Your task to perform on an android device: Open internet settings Image 0: 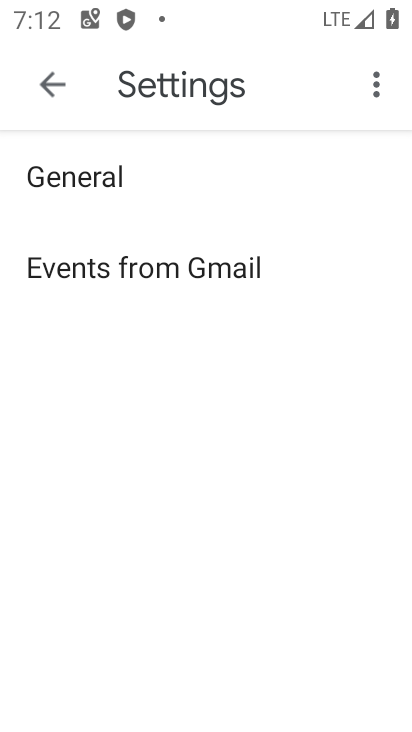
Step 0: press home button
Your task to perform on an android device: Open internet settings Image 1: 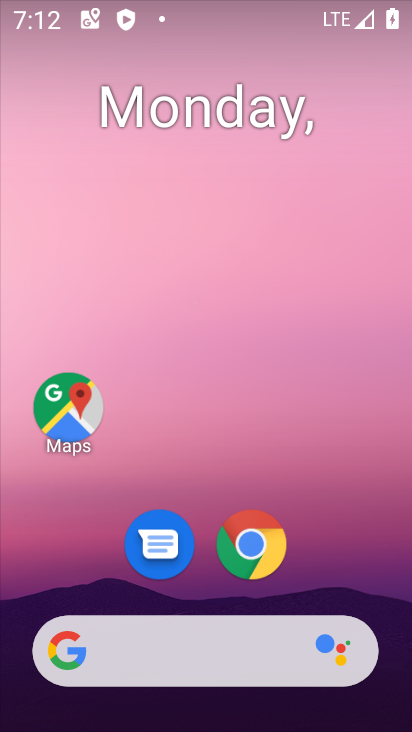
Step 1: drag from (342, 481) to (246, 16)
Your task to perform on an android device: Open internet settings Image 2: 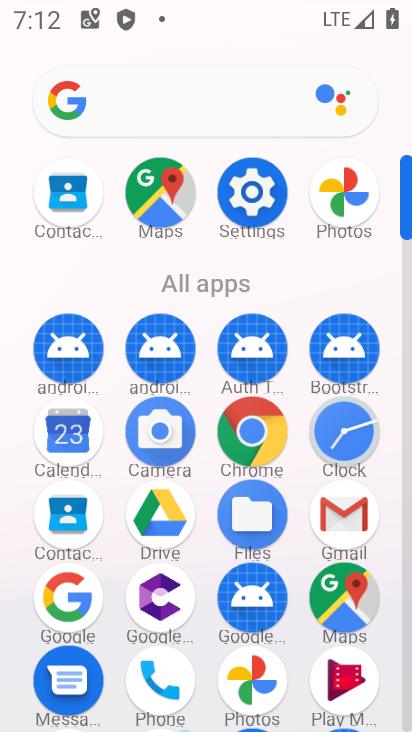
Step 2: click (254, 189)
Your task to perform on an android device: Open internet settings Image 3: 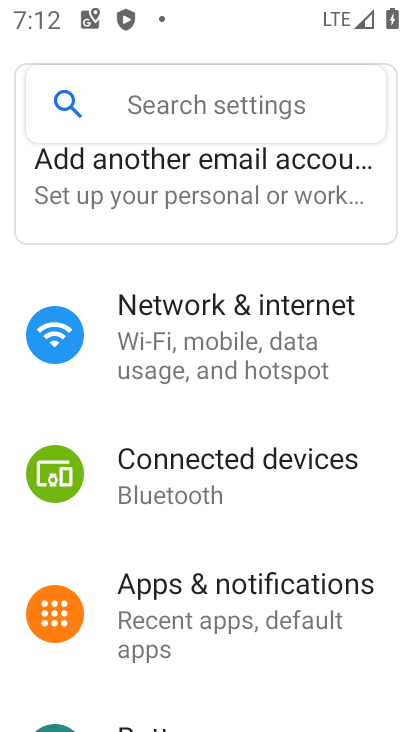
Step 3: click (198, 315)
Your task to perform on an android device: Open internet settings Image 4: 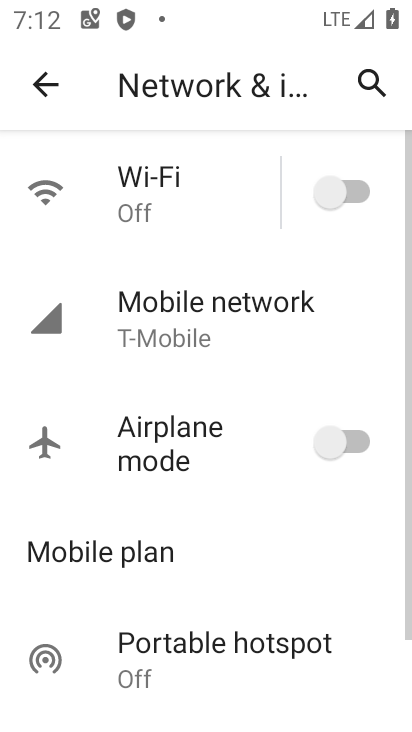
Step 4: click (190, 306)
Your task to perform on an android device: Open internet settings Image 5: 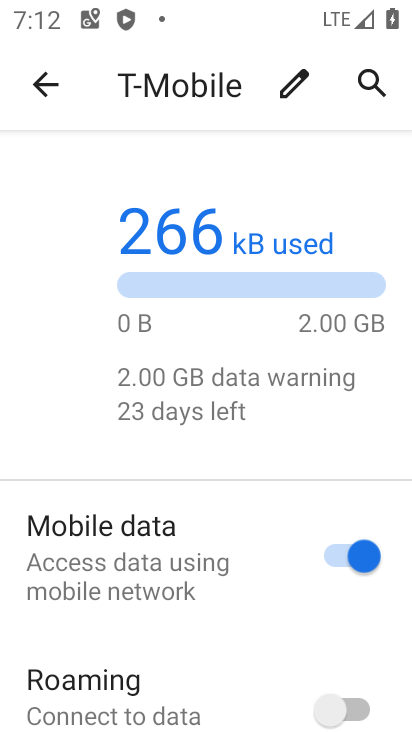
Step 5: task complete